Your task to perform on an android device: Open Amazon Image 0: 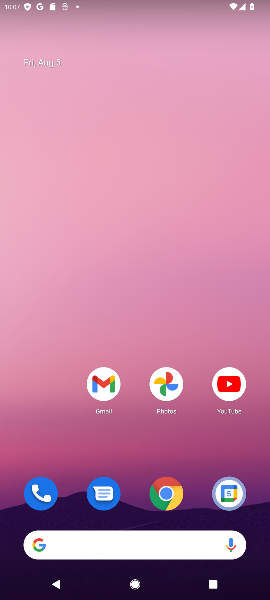
Step 0: press home button
Your task to perform on an android device: Open Amazon Image 1: 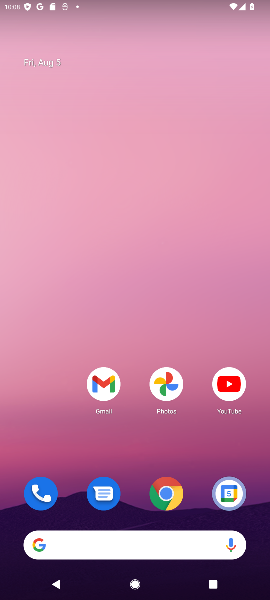
Step 1: drag from (136, 460) to (136, 57)
Your task to perform on an android device: Open Amazon Image 2: 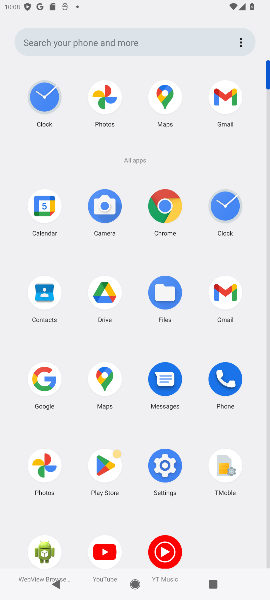
Step 2: click (167, 199)
Your task to perform on an android device: Open Amazon Image 3: 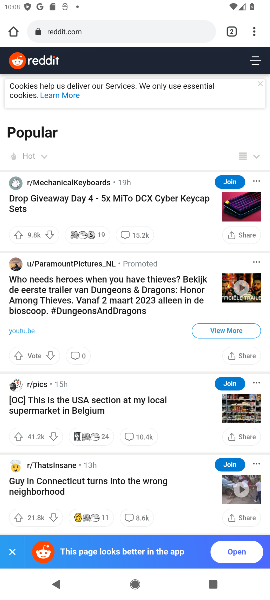
Step 3: click (227, 29)
Your task to perform on an android device: Open Amazon Image 4: 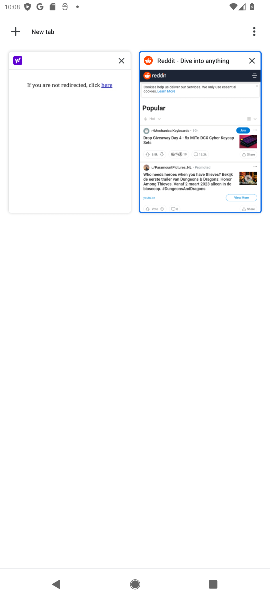
Step 4: click (14, 31)
Your task to perform on an android device: Open Amazon Image 5: 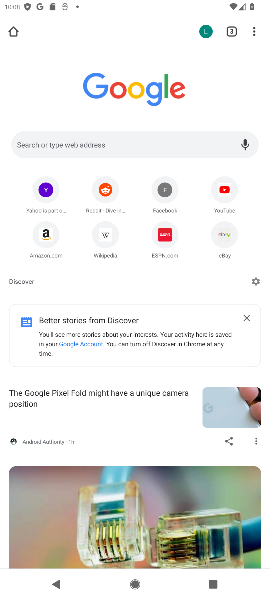
Step 5: click (42, 233)
Your task to perform on an android device: Open Amazon Image 6: 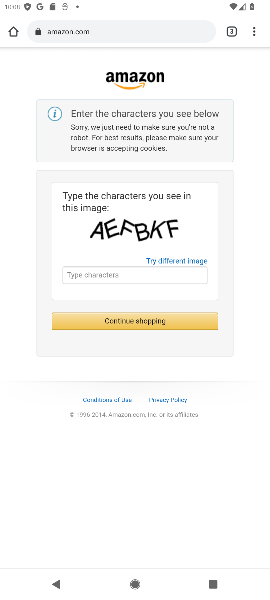
Step 6: task complete